Your task to perform on an android device: Open calendar and show me the first week of next month Image 0: 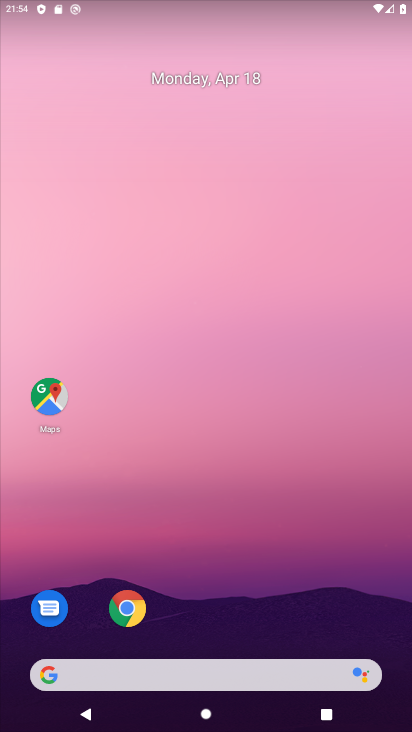
Step 0: drag from (223, 619) to (274, 164)
Your task to perform on an android device: Open calendar and show me the first week of next month Image 1: 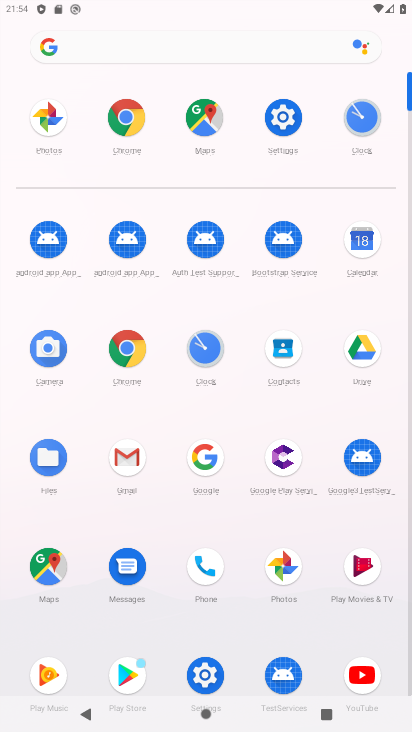
Step 1: click (361, 240)
Your task to perform on an android device: Open calendar and show me the first week of next month Image 2: 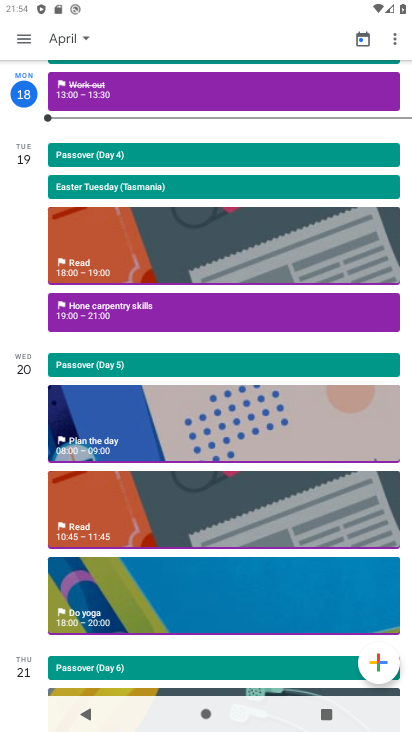
Step 2: click (79, 36)
Your task to perform on an android device: Open calendar and show me the first week of next month Image 3: 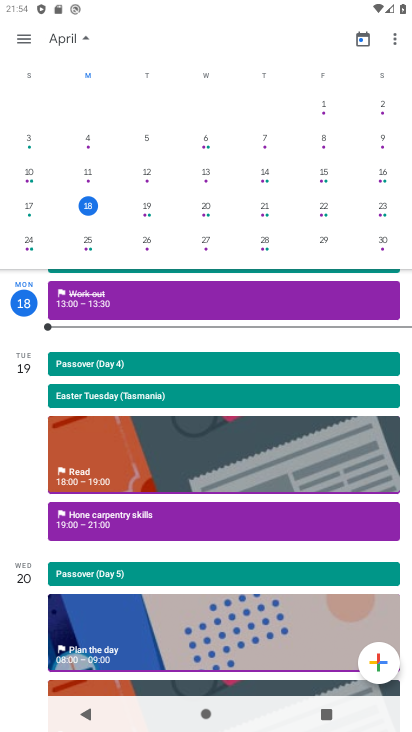
Step 3: drag from (375, 259) to (19, 257)
Your task to perform on an android device: Open calendar and show me the first week of next month Image 4: 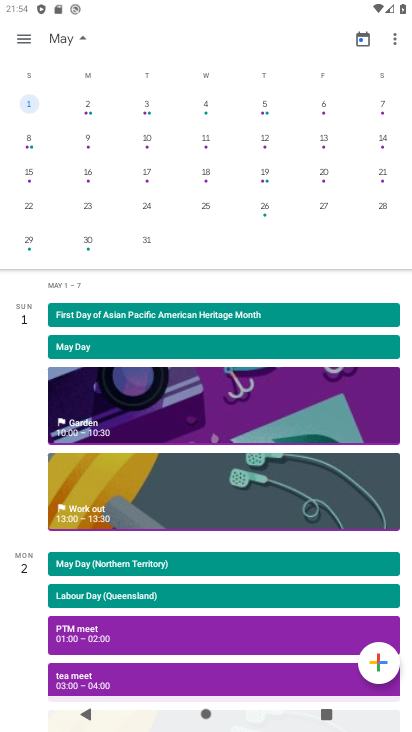
Step 4: click (141, 109)
Your task to perform on an android device: Open calendar and show me the first week of next month Image 5: 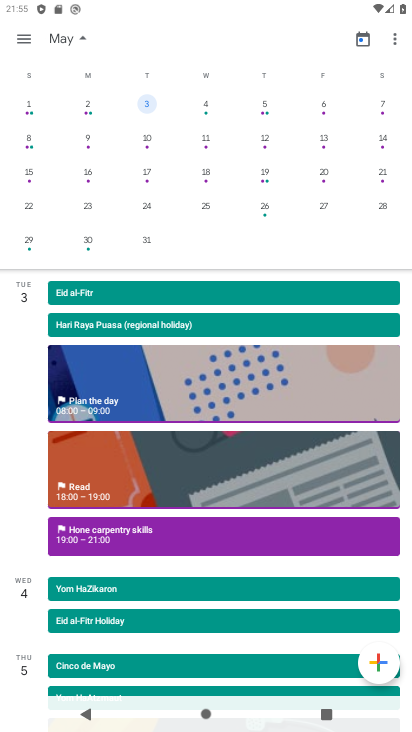
Step 5: task complete